Your task to perform on an android device: Open calendar and show me the first week of next month Image 0: 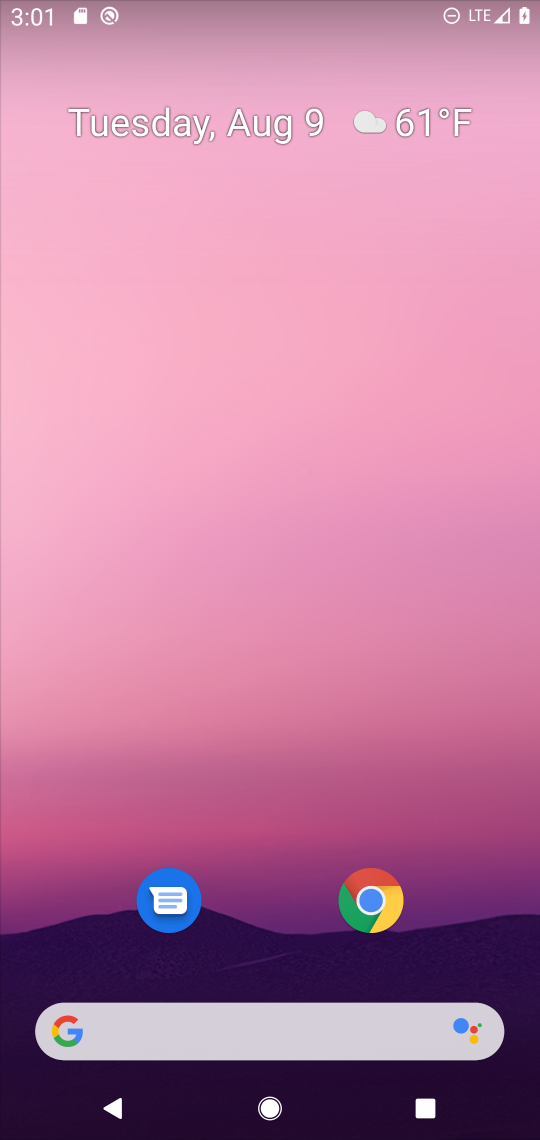
Step 0: press home button
Your task to perform on an android device: Open calendar and show me the first week of next month Image 1: 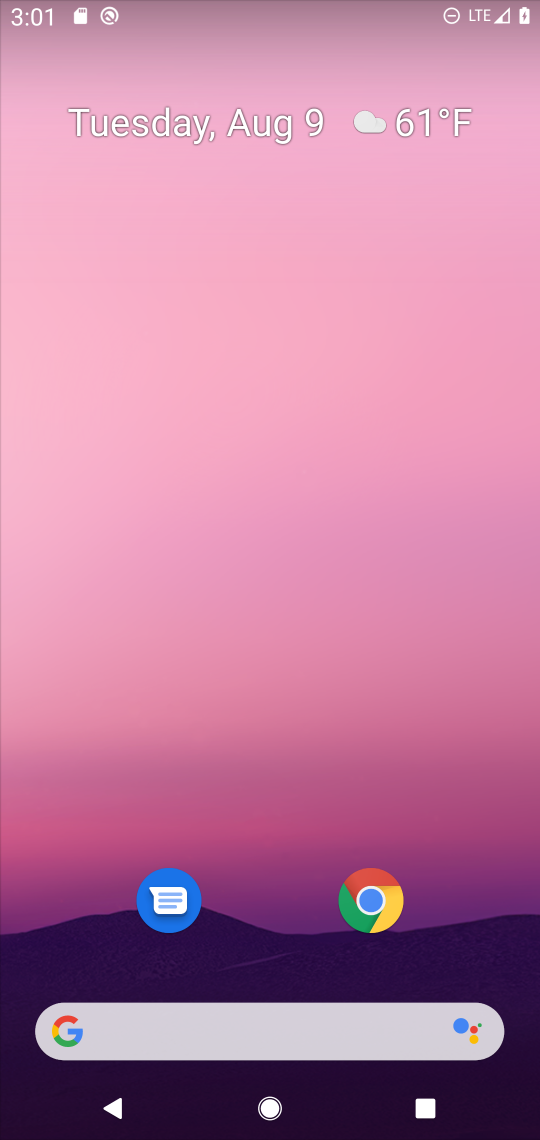
Step 1: drag from (282, 932) to (301, 331)
Your task to perform on an android device: Open calendar and show me the first week of next month Image 2: 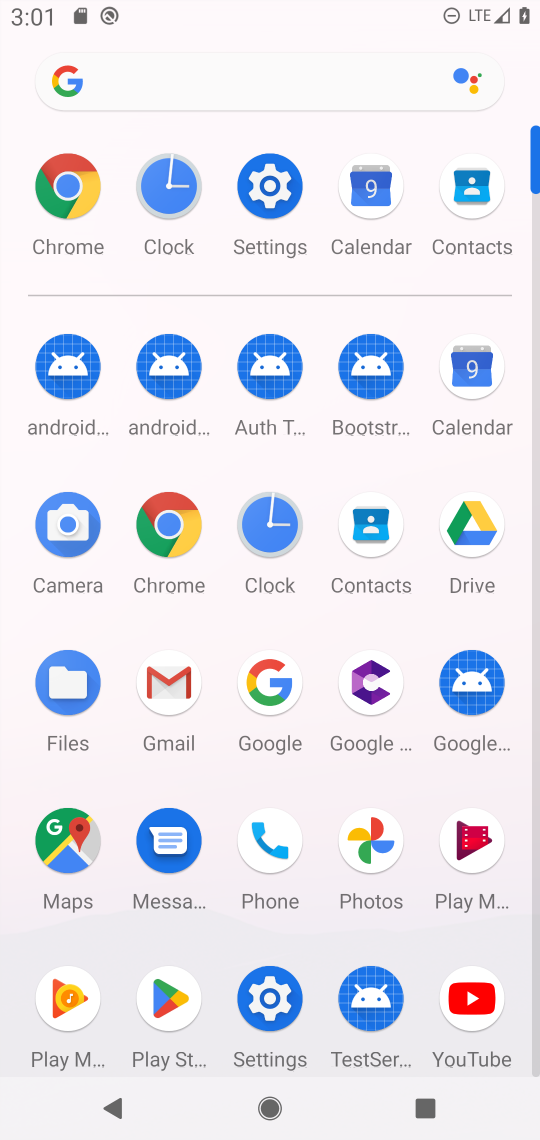
Step 2: click (481, 369)
Your task to perform on an android device: Open calendar and show me the first week of next month Image 3: 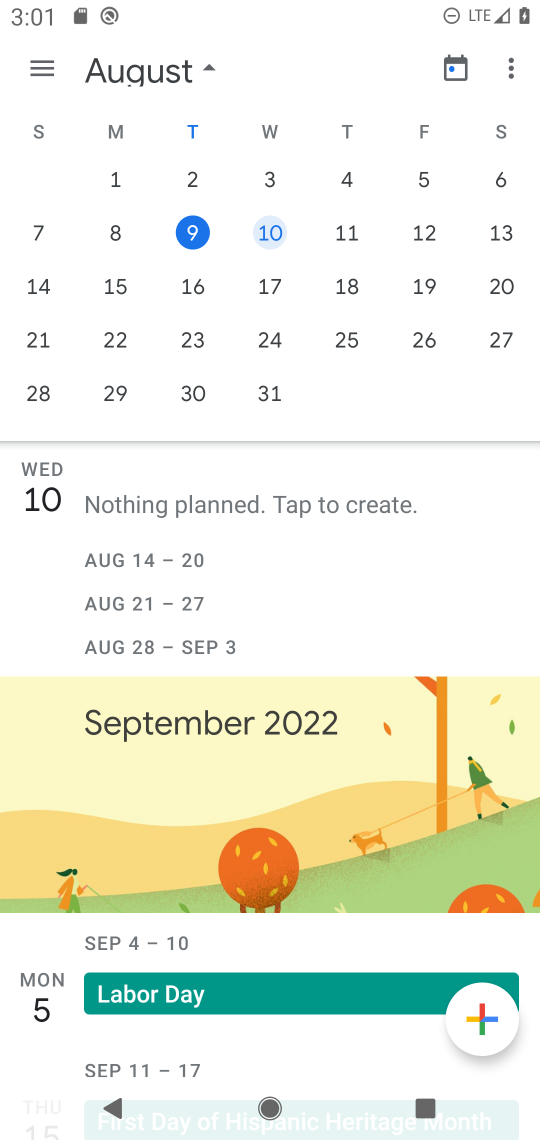
Step 3: task complete